Your task to perform on an android device: What is the recent news? Image 0: 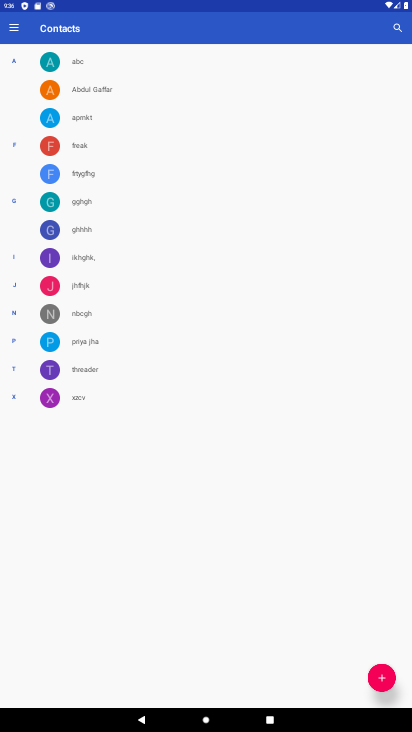
Step 0: press home button
Your task to perform on an android device: What is the recent news? Image 1: 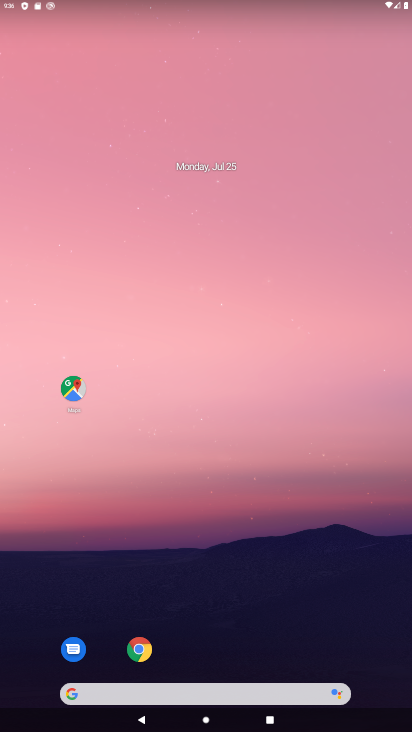
Step 1: click (192, 694)
Your task to perform on an android device: What is the recent news? Image 2: 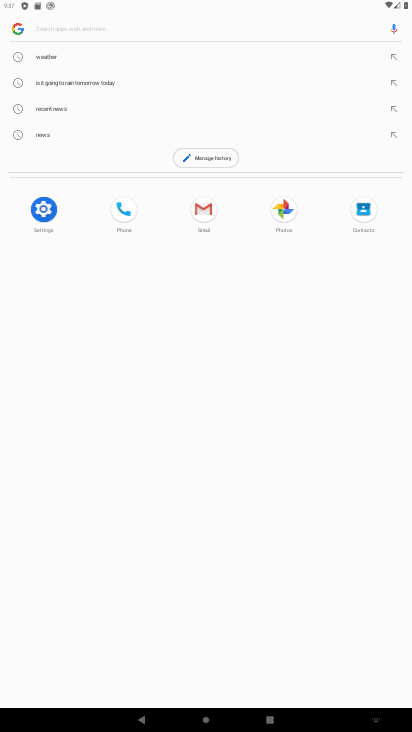
Step 2: type "recent news"
Your task to perform on an android device: What is the recent news? Image 3: 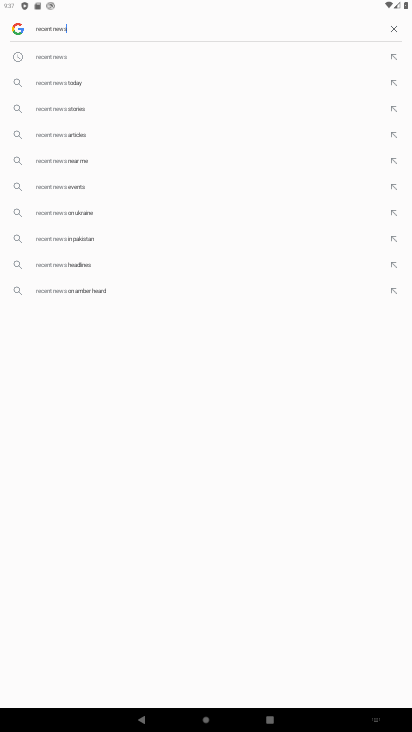
Step 3: click (103, 52)
Your task to perform on an android device: What is the recent news? Image 4: 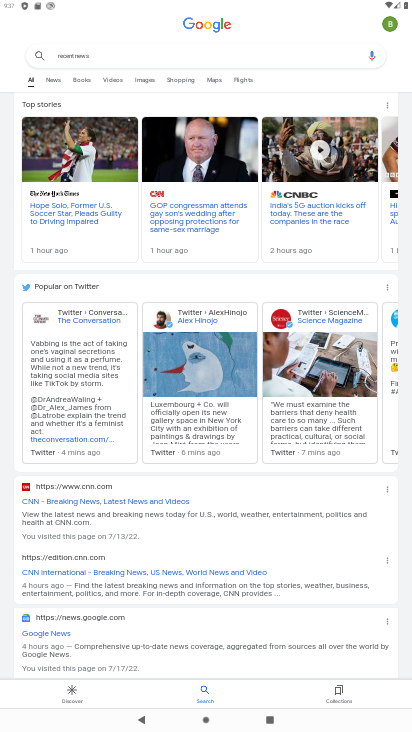
Step 4: task complete